Your task to perform on an android device: Do I have any events this weekend? Image 0: 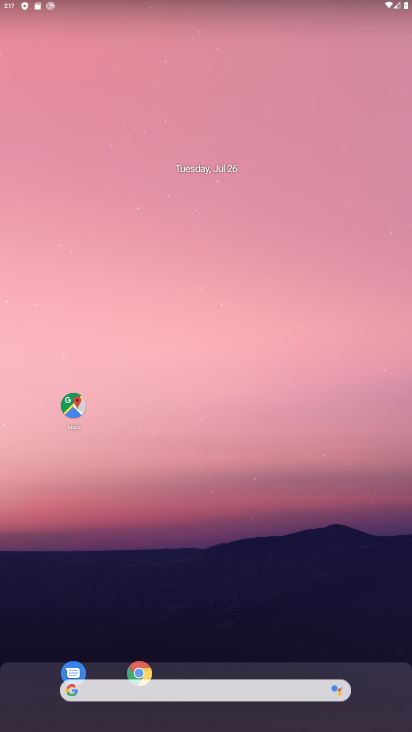
Step 0: press home button
Your task to perform on an android device: Do I have any events this weekend? Image 1: 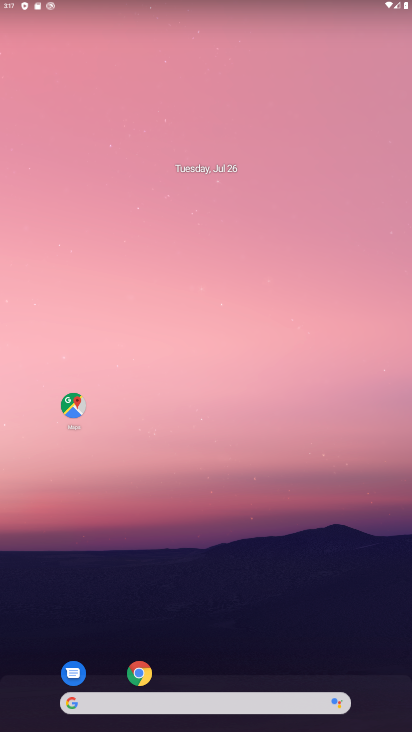
Step 1: drag from (87, 462) to (52, 296)
Your task to perform on an android device: Do I have any events this weekend? Image 2: 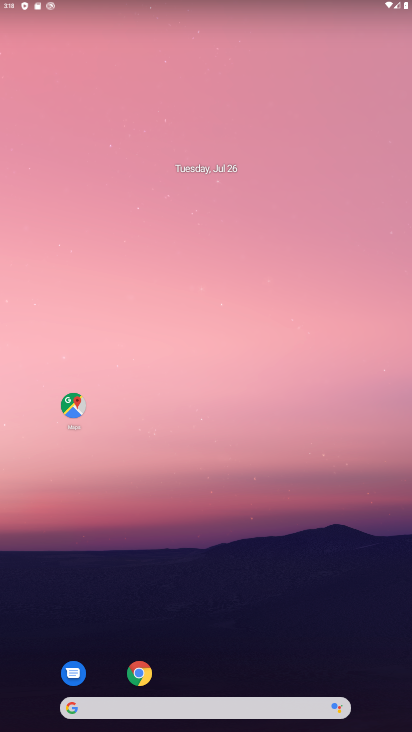
Step 2: drag from (186, 647) to (313, 3)
Your task to perform on an android device: Do I have any events this weekend? Image 3: 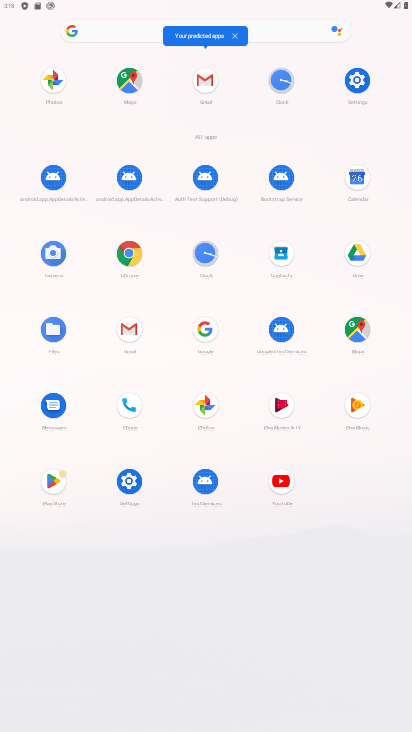
Step 3: click (352, 169)
Your task to perform on an android device: Do I have any events this weekend? Image 4: 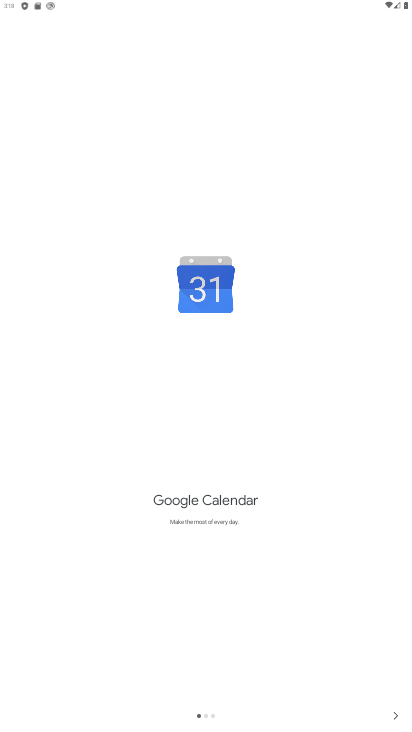
Step 4: click (389, 716)
Your task to perform on an android device: Do I have any events this weekend? Image 5: 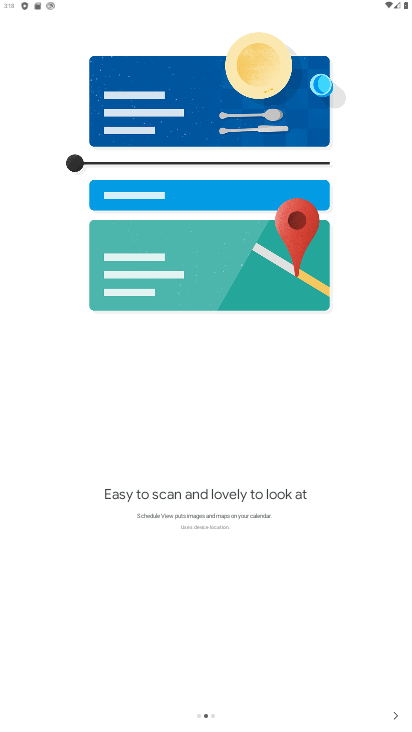
Step 5: click (389, 709)
Your task to perform on an android device: Do I have any events this weekend? Image 6: 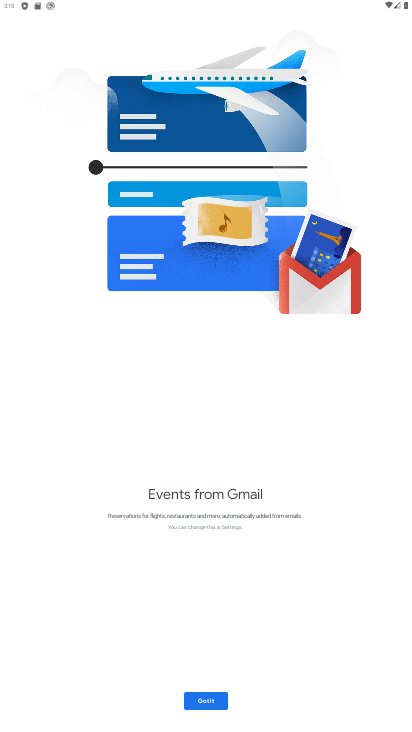
Step 6: click (205, 697)
Your task to perform on an android device: Do I have any events this weekend? Image 7: 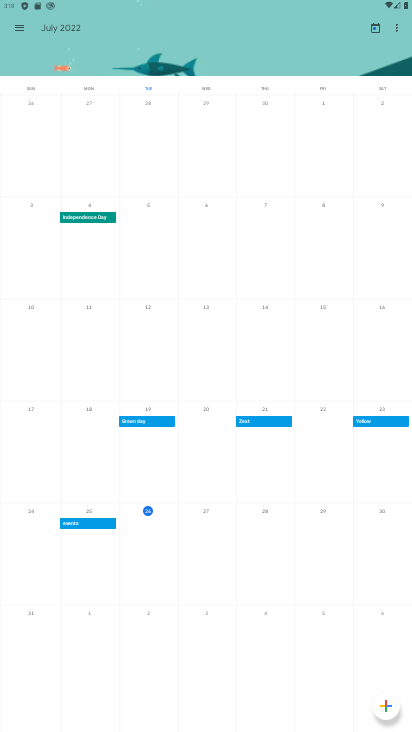
Step 7: click (11, 30)
Your task to perform on an android device: Do I have any events this weekend? Image 8: 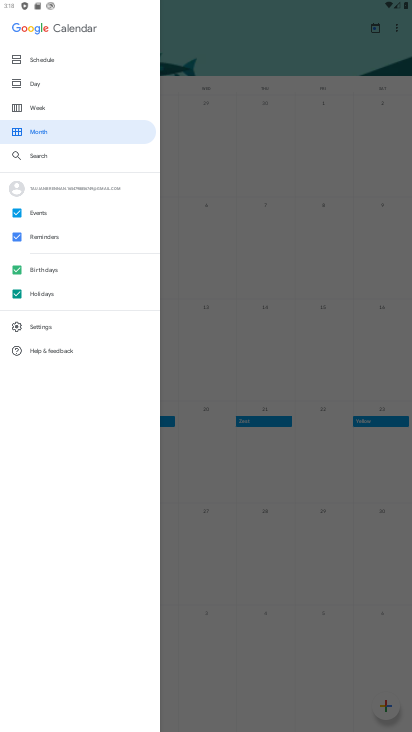
Step 8: click (36, 103)
Your task to perform on an android device: Do I have any events this weekend? Image 9: 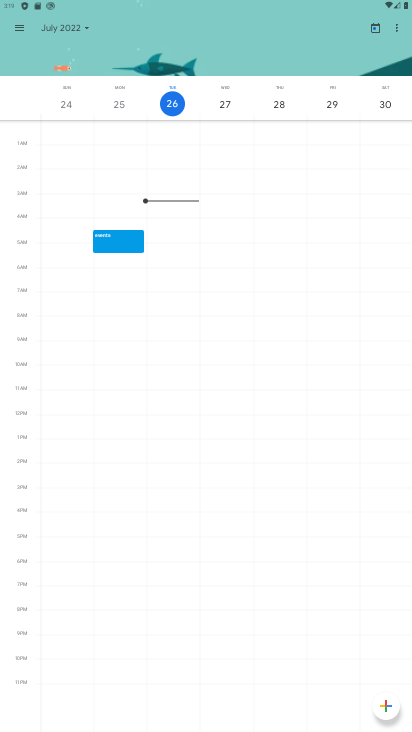
Step 9: click (23, 27)
Your task to perform on an android device: Do I have any events this weekend? Image 10: 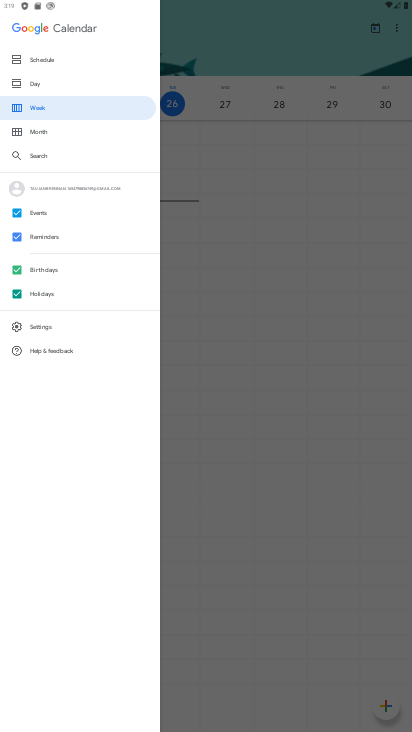
Step 10: click (11, 290)
Your task to perform on an android device: Do I have any events this weekend? Image 11: 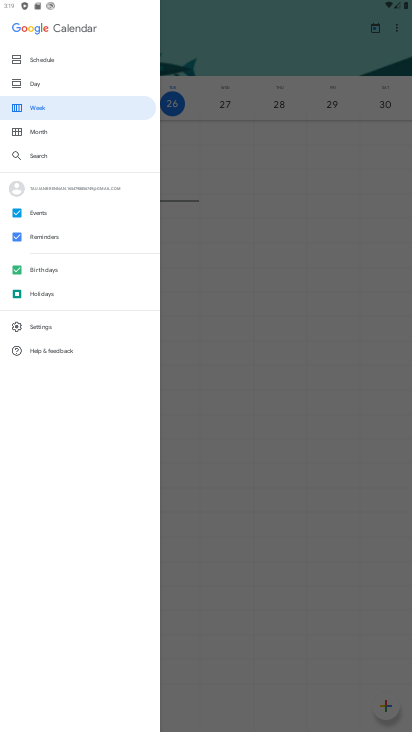
Step 11: click (16, 270)
Your task to perform on an android device: Do I have any events this weekend? Image 12: 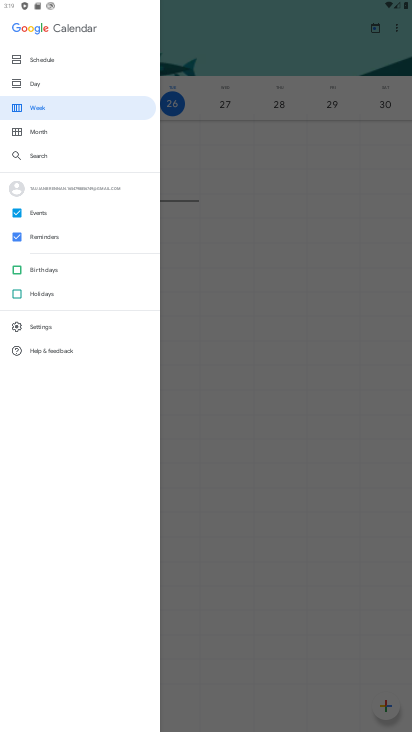
Step 12: click (15, 231)
Your task to perform on an android device: Do I have any events this weekend? Image 13: 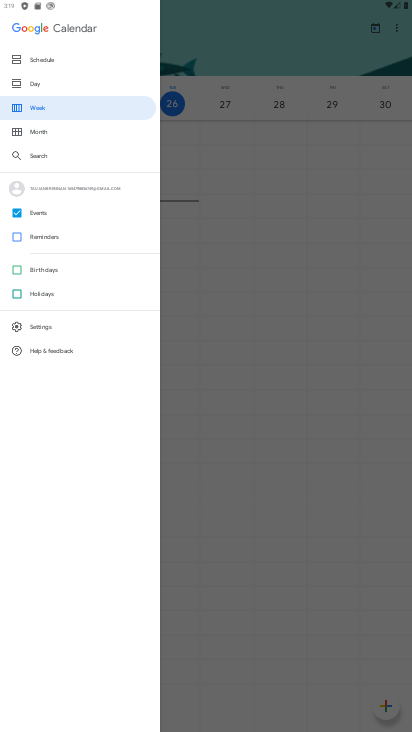
Step 13: click (24, 56)
Your task to perform on an android device: Do I have any events this weekend? Image 14: 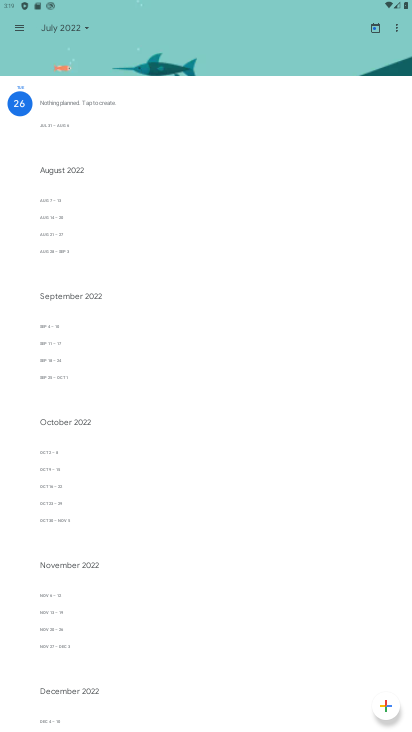
Step 14: task complete